Your task to perform on an android device: toggle priority inbox in the gmail app Image 0: 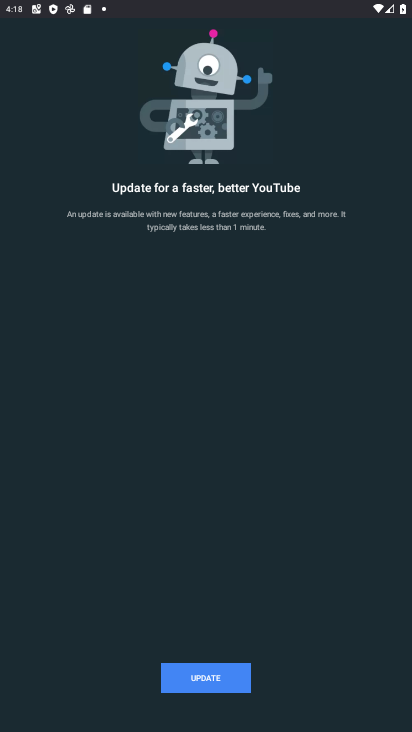
Step 0: press home button
Your task to perform on an android device: toggle priority inbox in the gmail app Image 1: 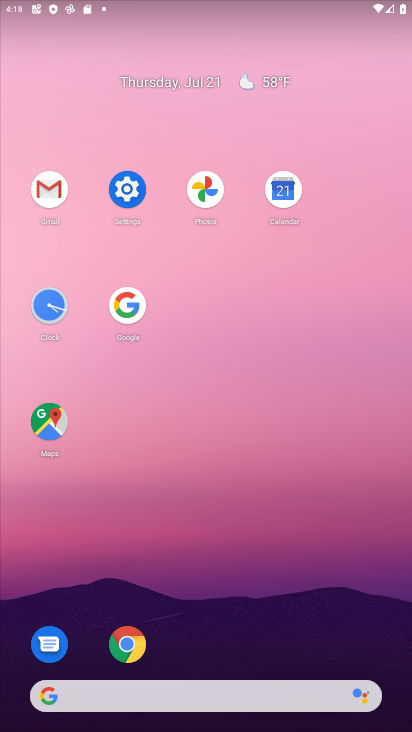
Step 1: click (52, 184)
Your task to perform on an android device: toggle priority inbox in the gmail app Image 2: 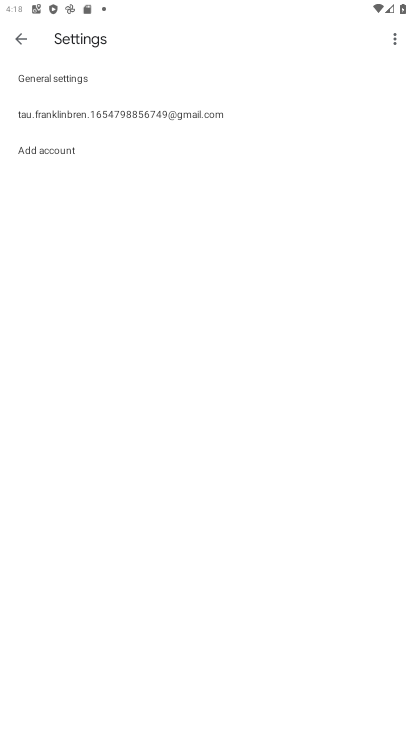
Step 2: click (57, 113)
Your task to perform on an android device: toggle priority inbox in the gmail app Image 3: 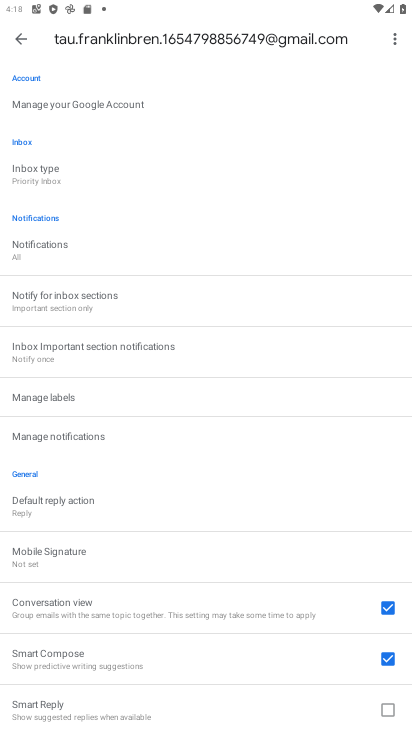
Step 3: click (63, 165)
Your task to perform on an android device: toggle priority inbox in the gmail app Image 4: 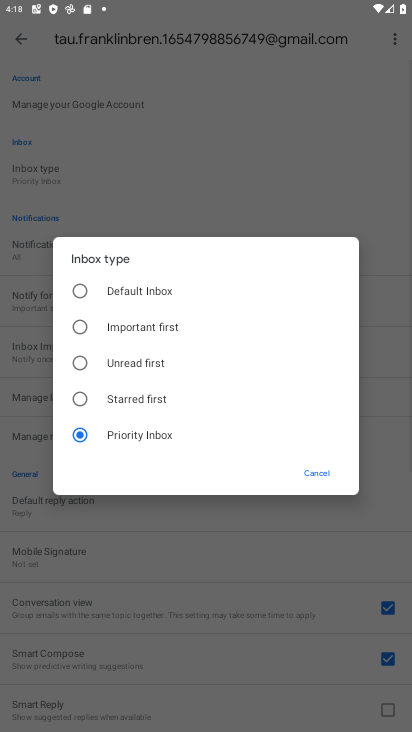
Step 4: click (151, 286)
Your task to perform on an android device: toggle priority inbox in the gmail app Image 5: 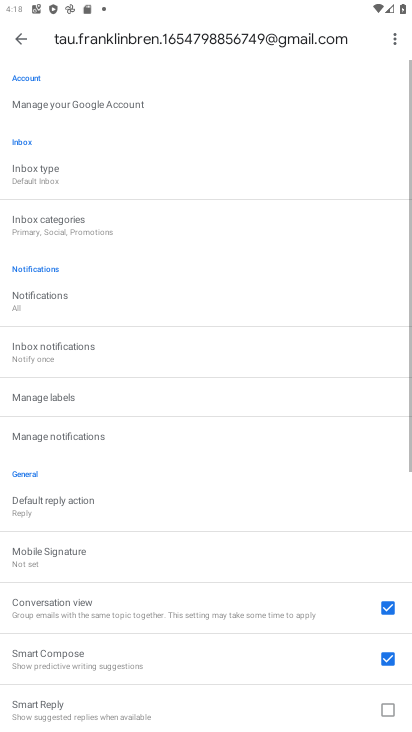
Step 5: task complete